Your task to perform on an android device: turn on priority inbox in the gmail app Image 0: 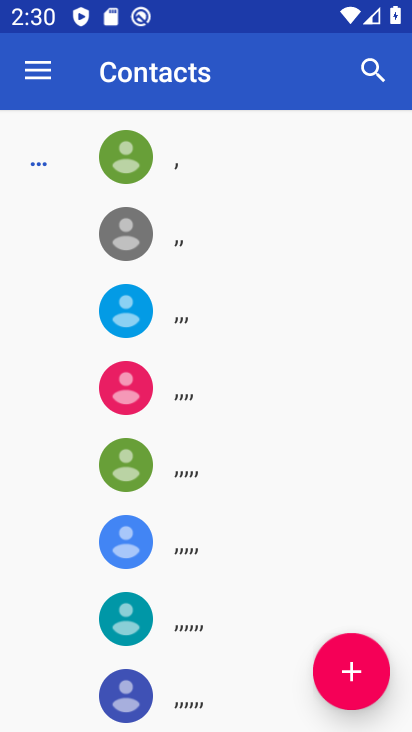
Step 0: press home button
Your task to perform on an android device: turn on priority inbox in the gmail app Image 1: 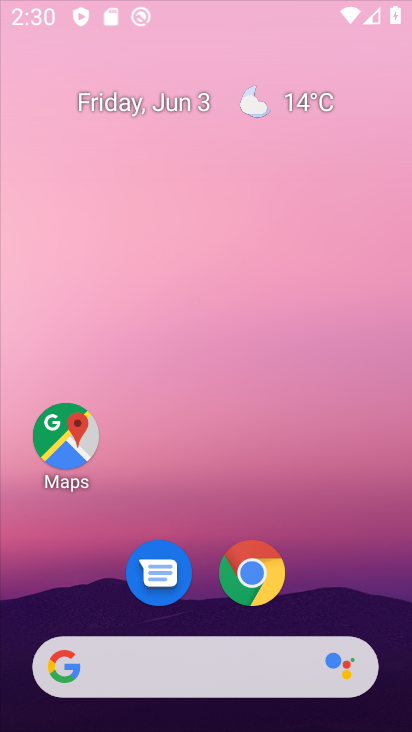
Step 1: drag from (215, 672) to (213, 53)
Your task to perform on an android device: turn on priority inbox in the gmail app Image 2: 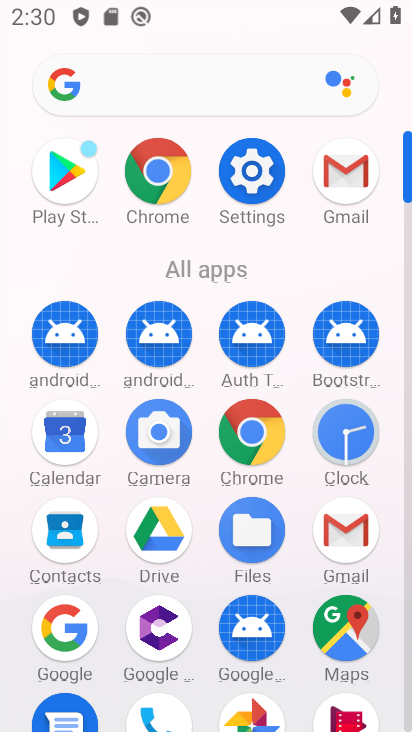
Step 2: click (350, 524)
Your task to perform on an android device: turn on priority inbox in the gmail app Image 3: 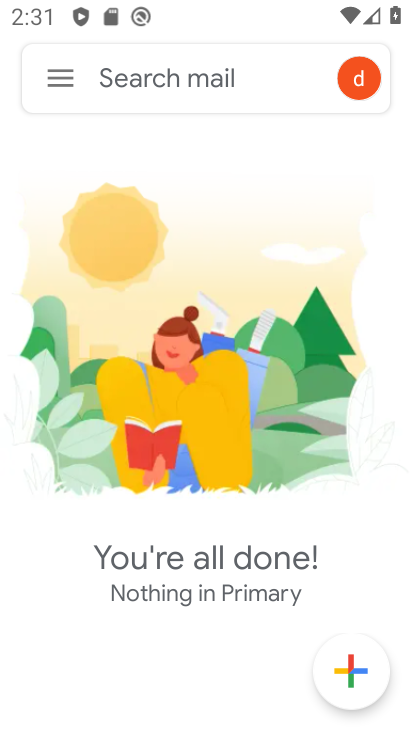
Step 3: click (49, 75)
Your task to perform on an android device: turn on priority inbox in the gmail app Image 4: 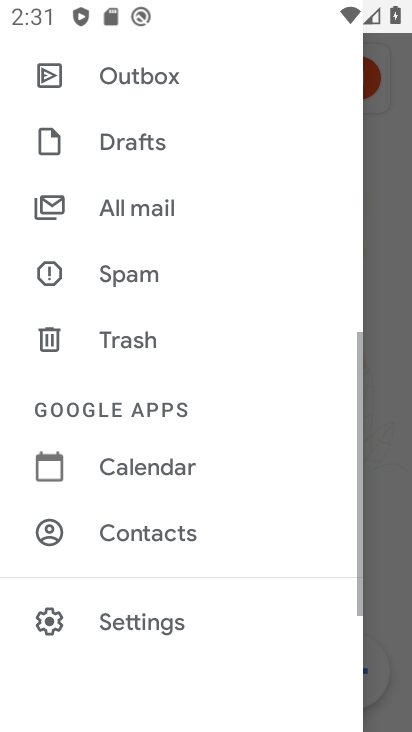
Step 4: click (144, 627)
Your task to perform on an android device: turn on priority inbox in the gmail app Image 5: 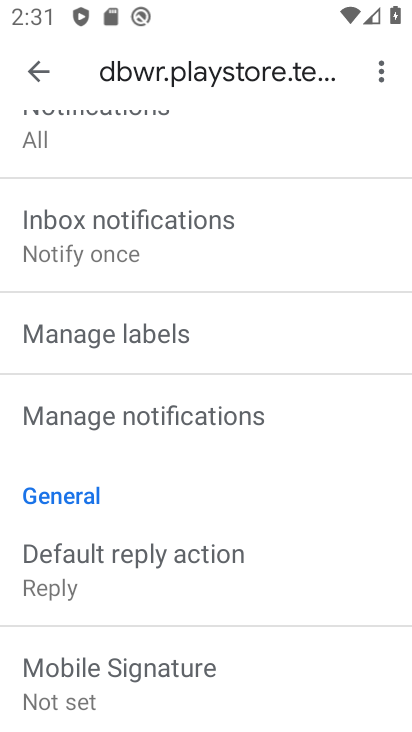
Step 5: drag from (191, 181) to (202, 723)
Your task to perform on an android device: turn on priority inbox in the gmail app Image 6: 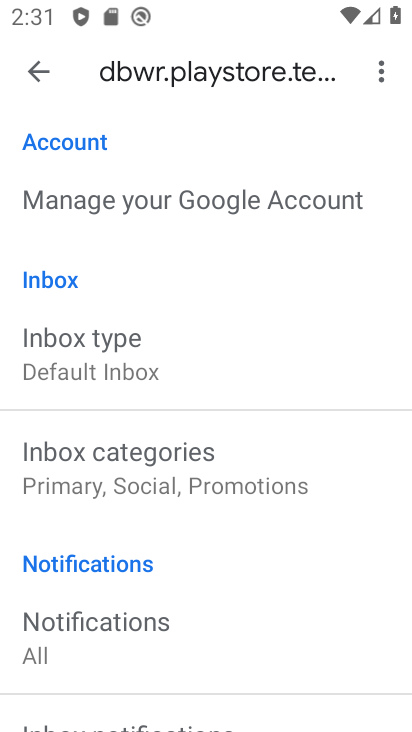
Step 6: click (132, 372)
Your task to perform on an android device: turn on priority inbox in the gmail app Image 7: 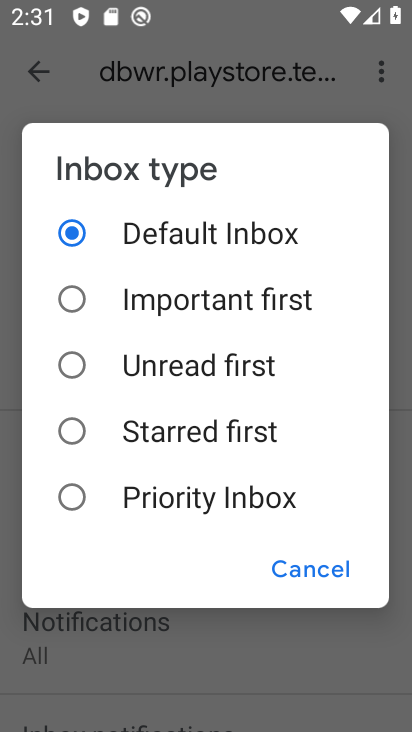
Step 7: click (146, 494)
Your task to perform on an android device: turn on priority inbox in the gmail app Image 8: 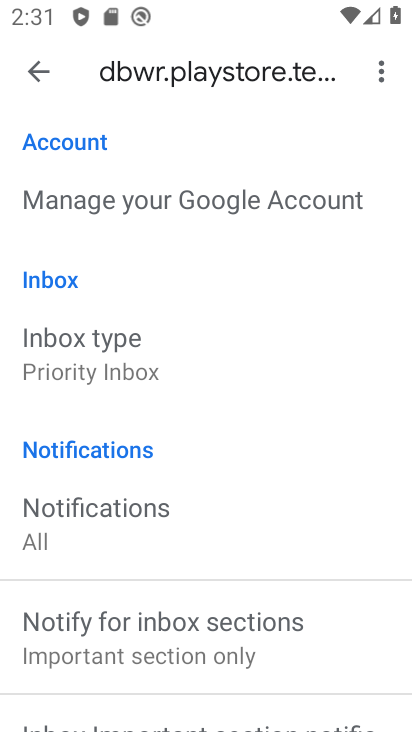
Step 8: task complete